Your task to perform on an android device: set an alarm Image 0: 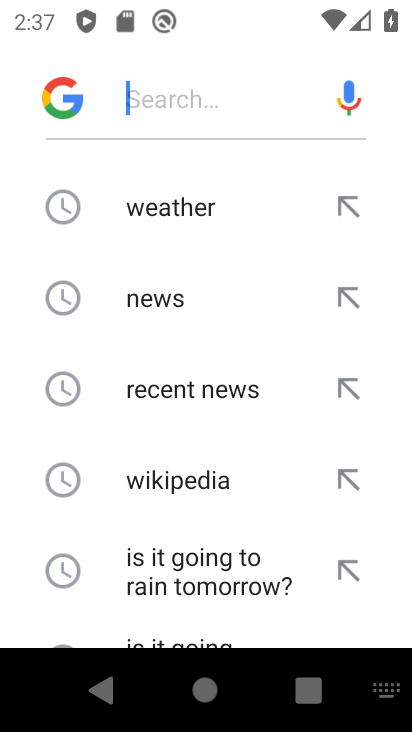
Step 0: press home button
Your task to perform on an android device: set an alarm Image 1: 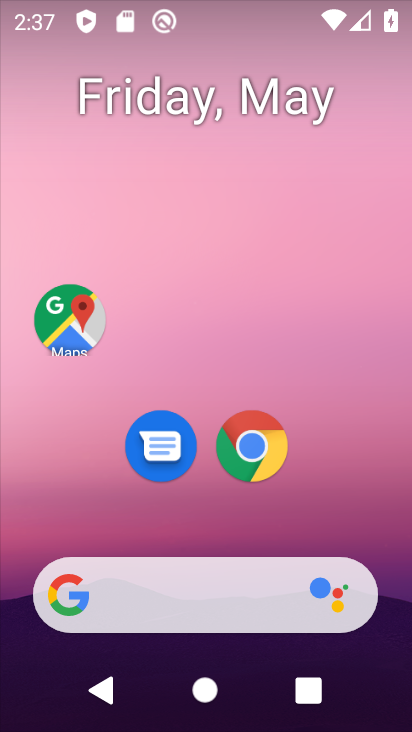
Step 1: drag from (374, 494) to (314, 12)
Your task to perform on an android device: set an alarm Image 2: 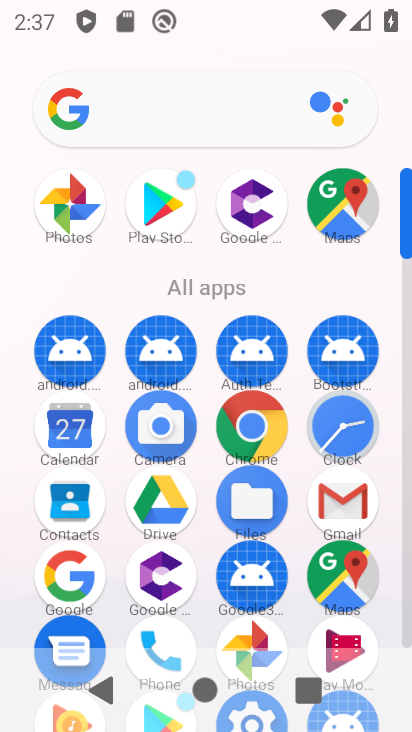
Step 2: click (340, 411)
Your task to perform on an android device: set an alarm Image 3: 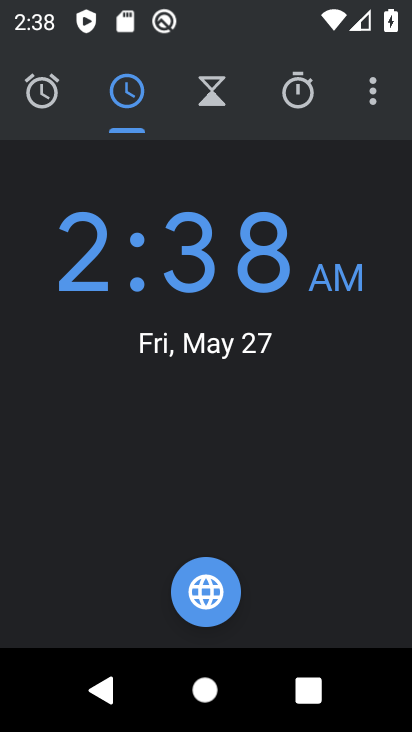
Step 3: click (372, 106)
Your task to perform on an android device: set an alarm Image 4: 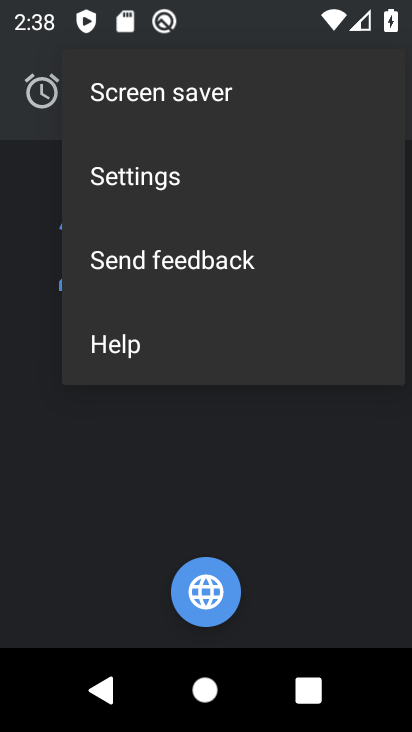
Step 4: click (65, 431)
Your task to perform on an android device: set an alarm Image 5: 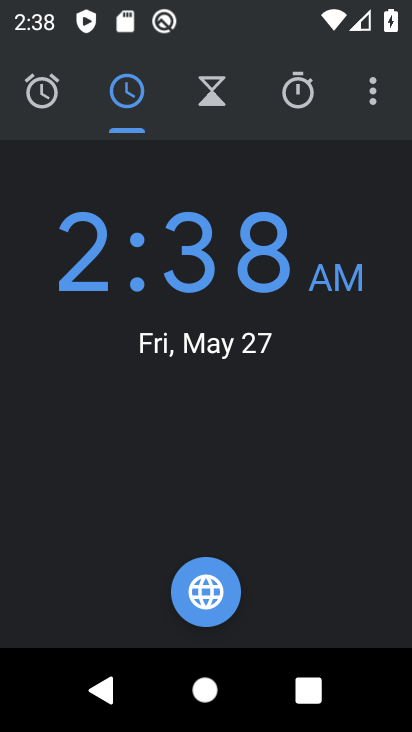
Step 5: click (33, 95)
Your task to perform on an android device: set an alarm Image 6: 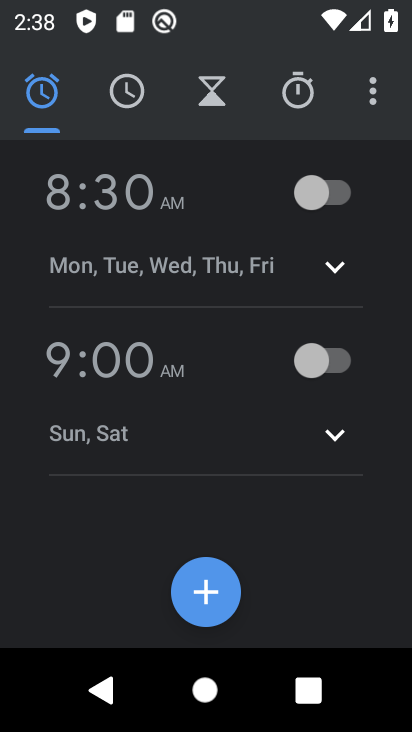
Step 6: click (198, 565)
Your task to perform on an android device: set an alarm Image 7: 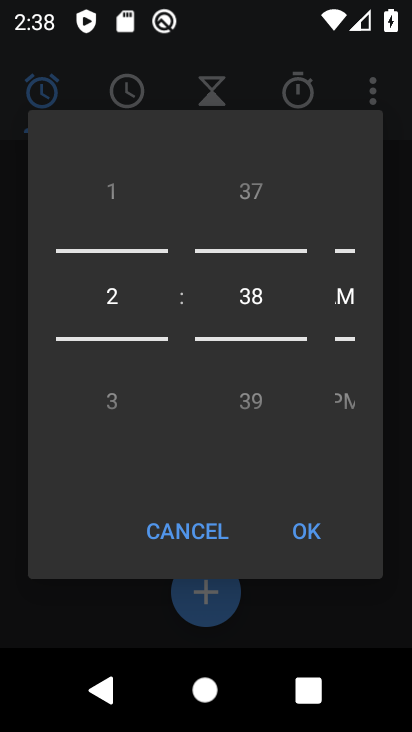
Step 7: click (298, 547)
Your task to perform on an android device: set an alarm Image 8: 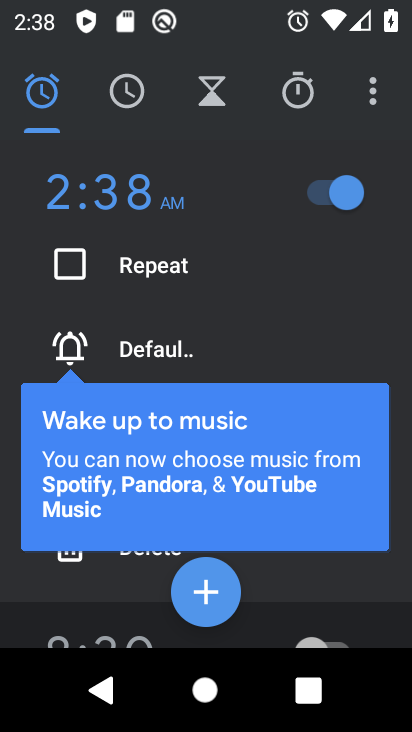
Step 8: task complete